Your task to perform on an android device: Find coffee shops on Maps Image 0: 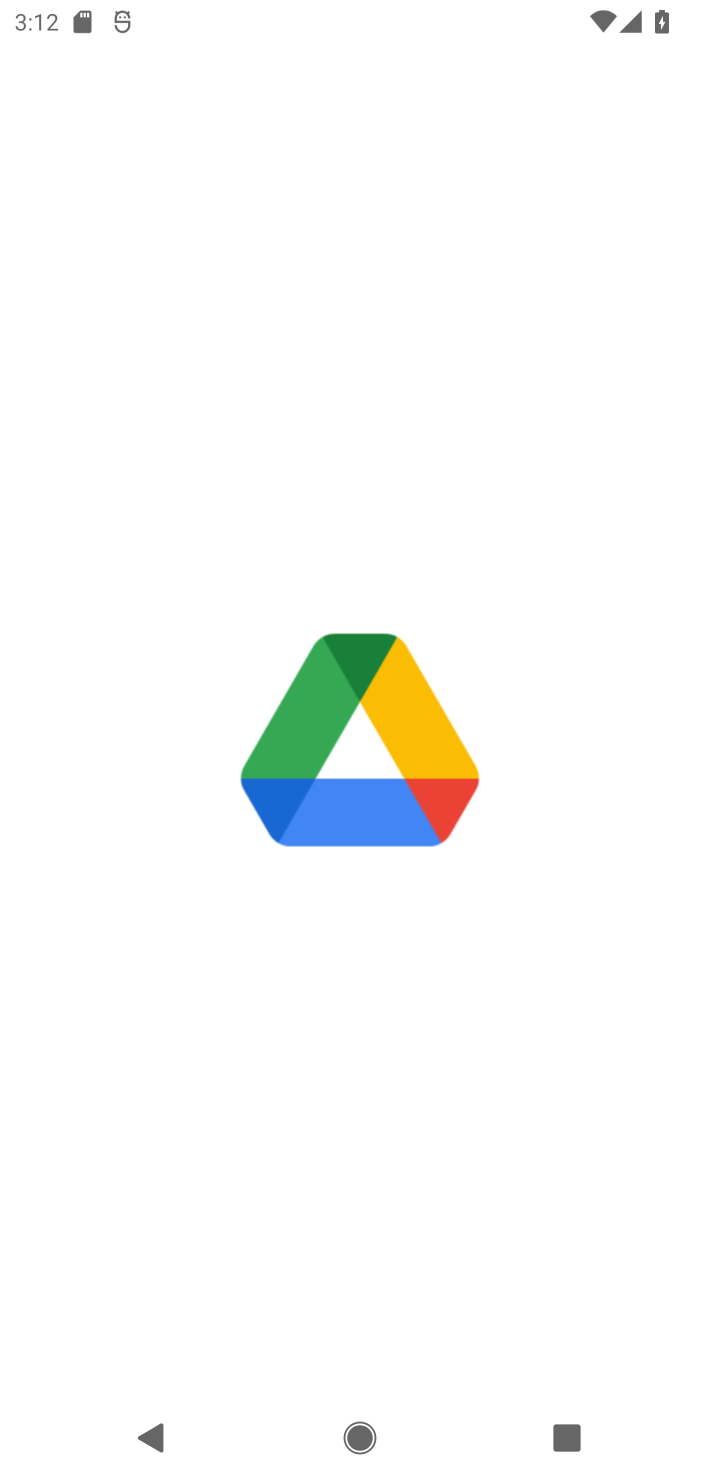
Step 0: press home button
Your task to perform on an android device: Find coffee shops on Maps Image 1: 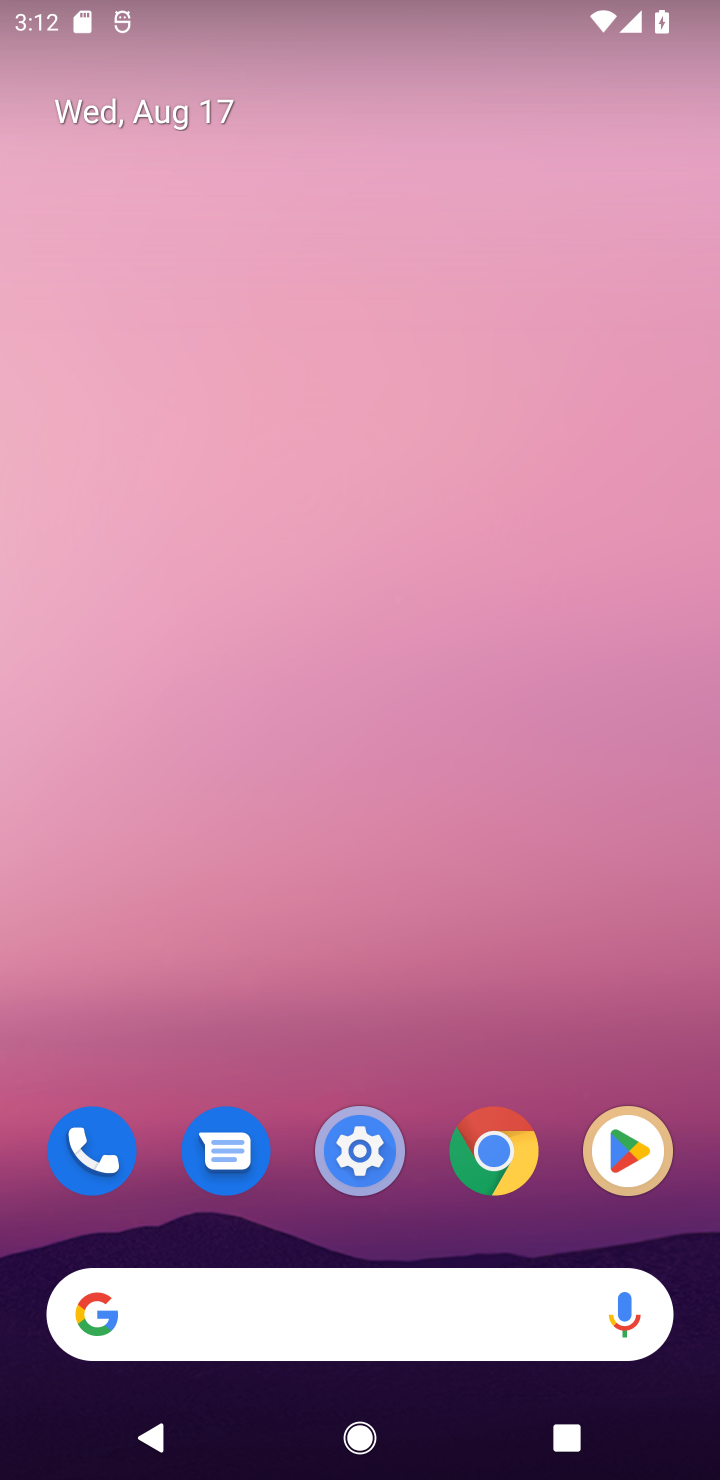
Step 1: drag from (446, 1244) to (425, 181)
Your task to perform on an android device: Find coffee shops on Maps Image 2: 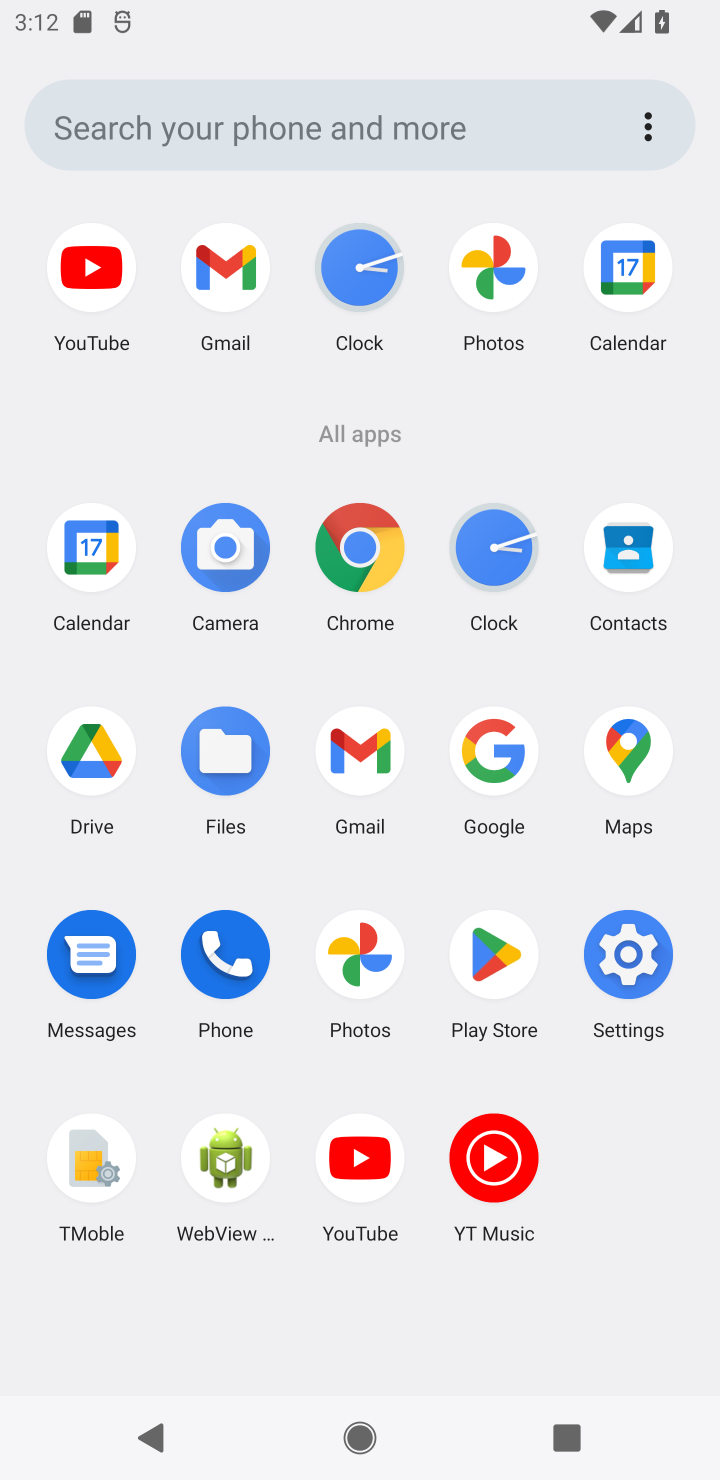
Step 2: click (593, 781)
Your task to perform on an android device: Find coffee shops on Maps Image 3: 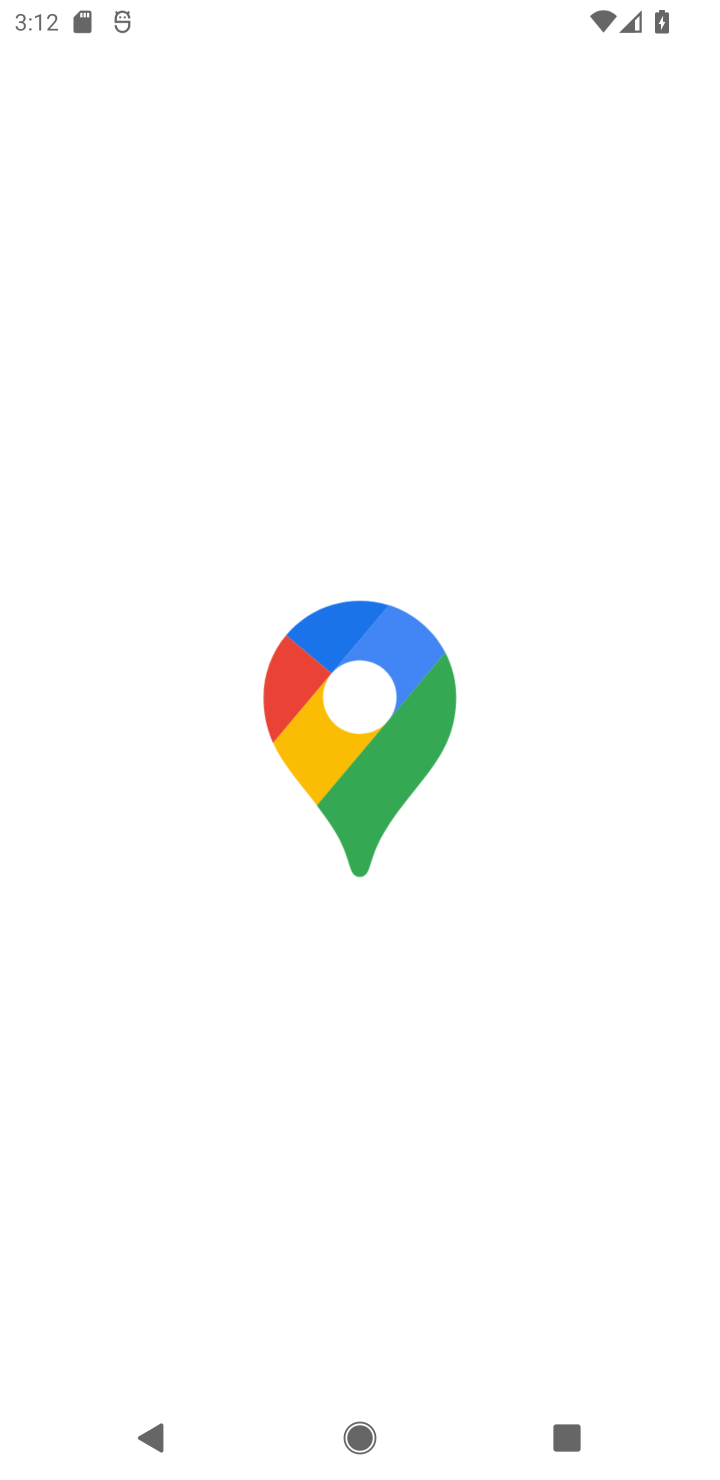
Step 3: task complete